Your task to perform on an android device: Open calendar and show me the first week of next month Image 0: 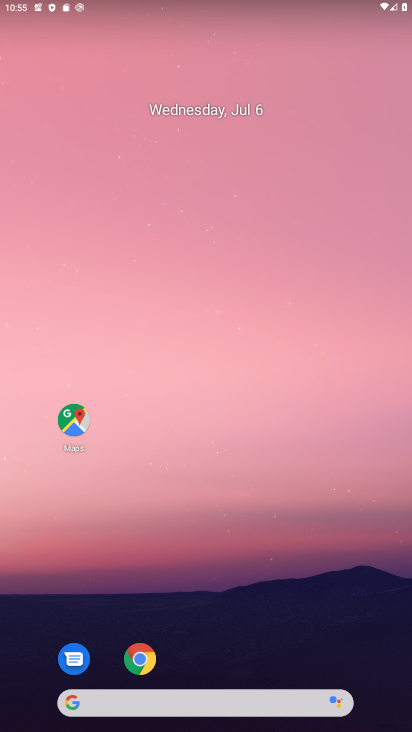
Step 0: drag from (263, 627) to (179, 157)
Your task to perform on an android device: Open calendar and show me the first week of next month Image 1: 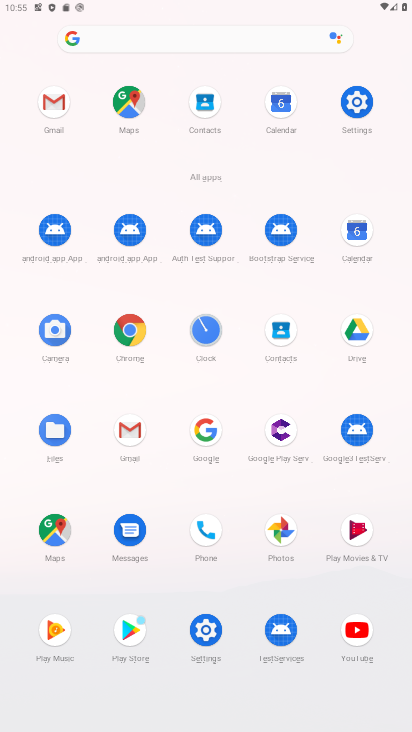
Step 1: click (364, 230)
Your task to perform on an android device: Open calendar and show me the first week of next month Image 2: 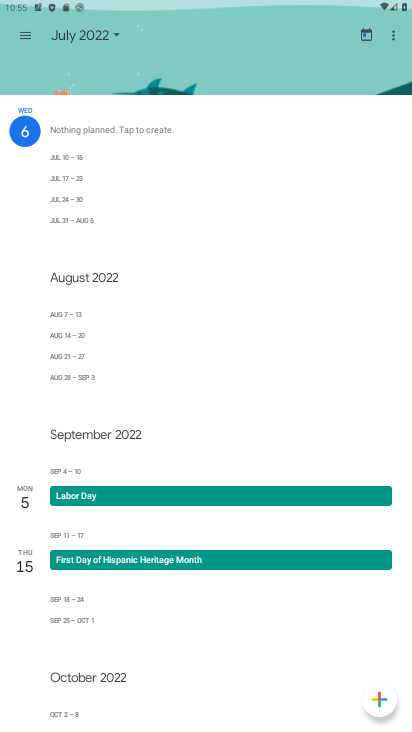
Step 2: click (116, 39)
Your task to perform on an android device: Open calendar and show me the first week of next month Image 3: 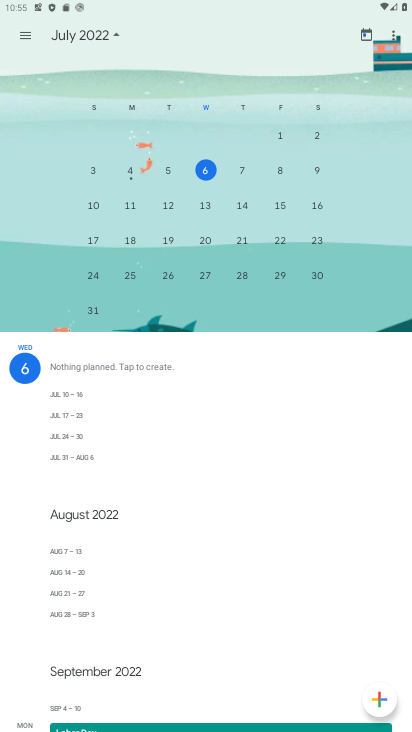
Step 3: drag from (310, 184) to (67, 150)
Your task to perform on an android device: Open calendar and show me the first week of next month Image 4: 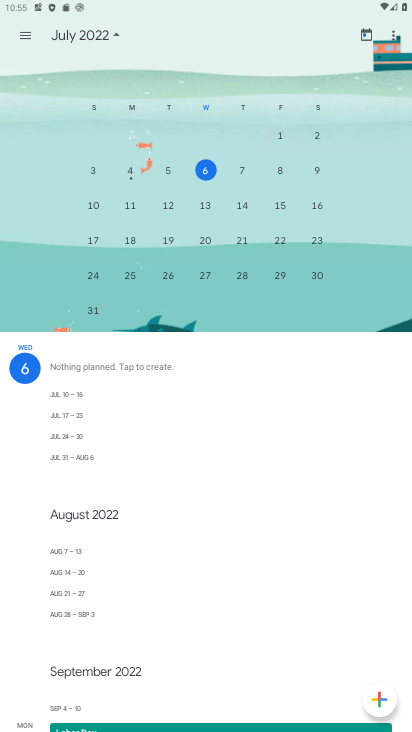
Step 4: click (20, 32)
Your task to perform on an android device: Open calendar and show me the first week of next month Image 5: 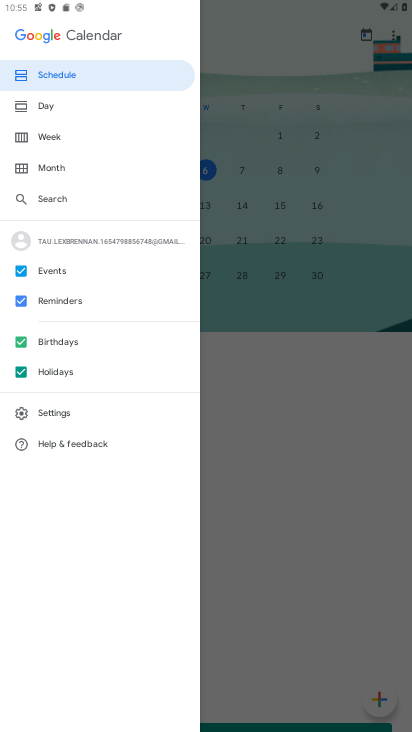
Step 5: click (51, 134)
Your task to perform on an android device: Open calendar and show me the first week of next month Image 6: 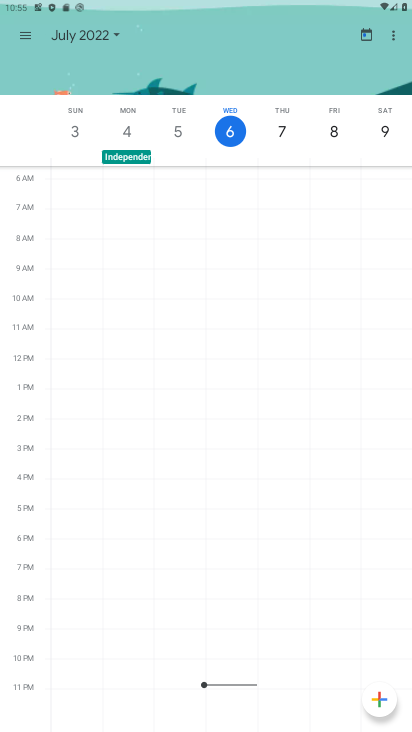
Step 6: click (115, 34)
Your task to perform on an android device: Open calendar and show me the first week of next month Image 7: 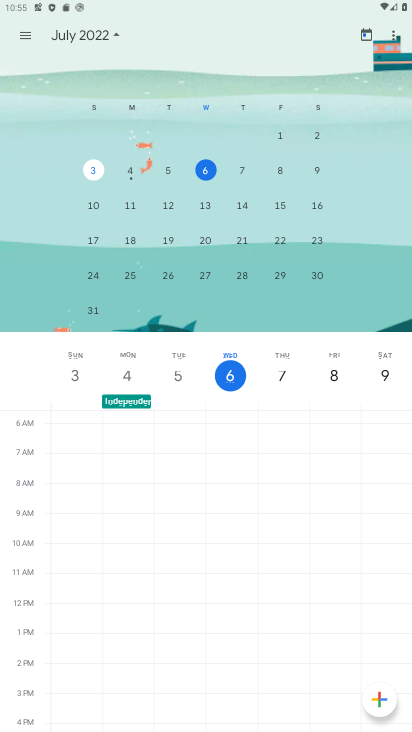
Step 7: drag from (233, 193) to (41, 178)
Your task to perform on an android device: Open calendar and show me the first week of next month Image 8: 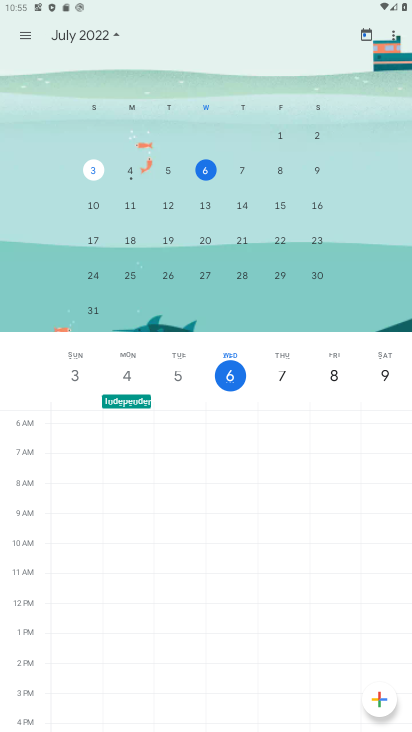
Step 8: drag from (313, 223) to (0, 266)
Your task to perform on an android device: Open calendar and show me the first week of next month Image 9: 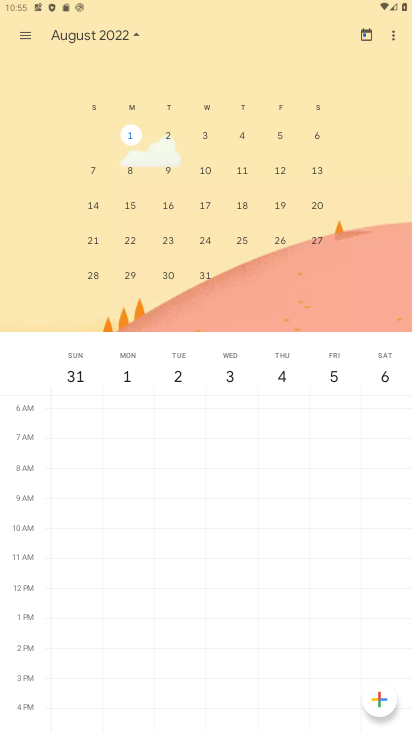
Step 9: click (131, 140)
Your task to perform on an android device: Open calendar and show me the first week of next month Image 10: 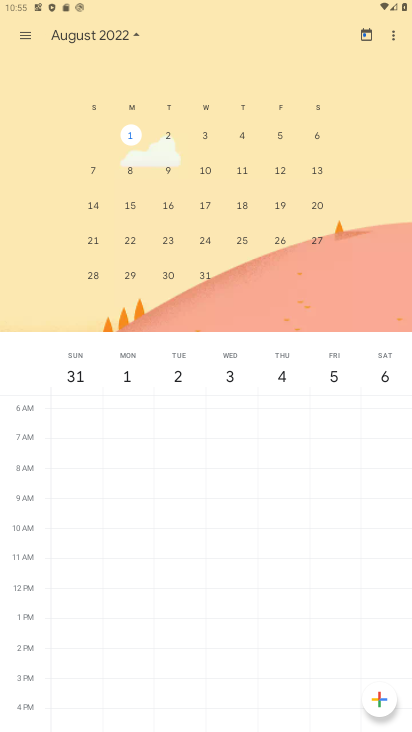
Step 10: task complete